Your task to perform on an android device: Go to Maps Image 0: 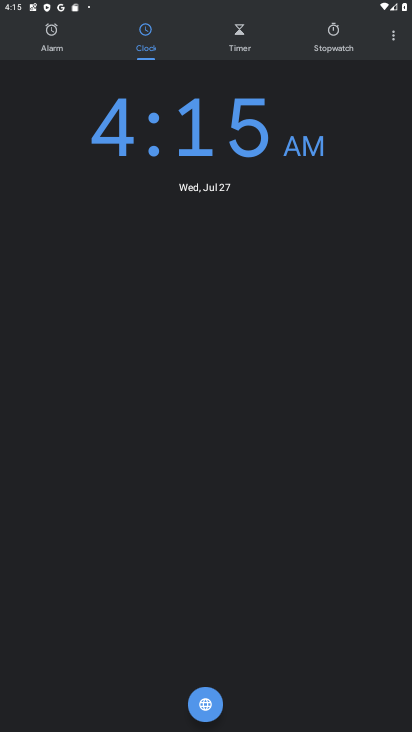
Step 0: press home button
Your task to perform on an android device: Go to Maps Image 1: 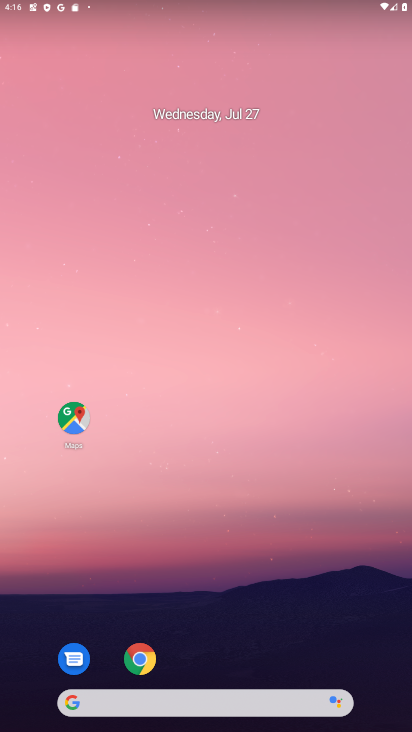
Step 1: drag from (273, 617) to (237, 87)
Your task to perform on an android device: Go to Maps Image 2: 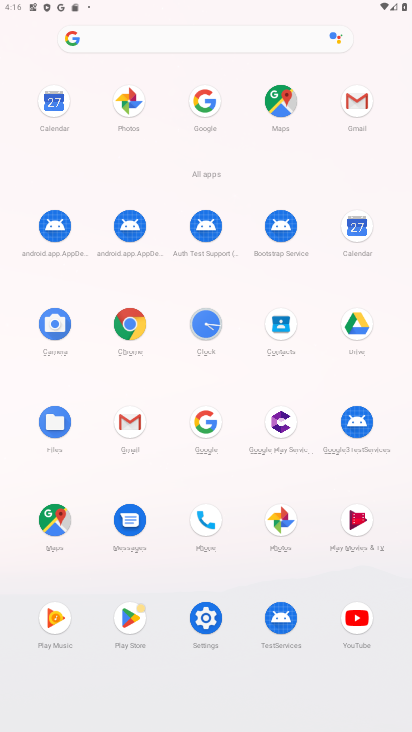
Step 2: click (273, 111)
Your task to perform on an android device: Go to Maps Image 3: 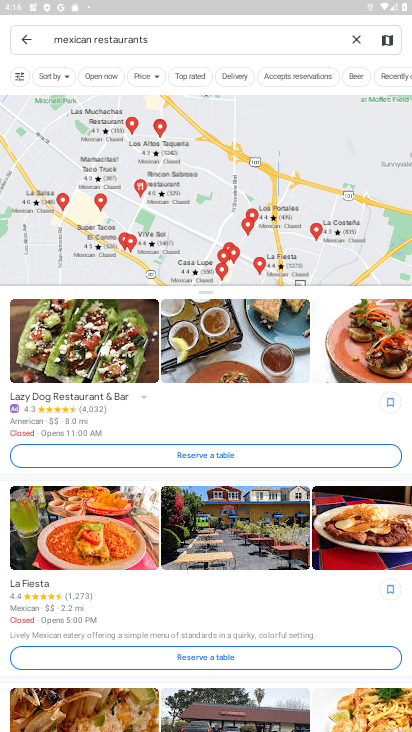
Step 3: task complete